Your task to perform on an android device: turn notification dots on Image 0: 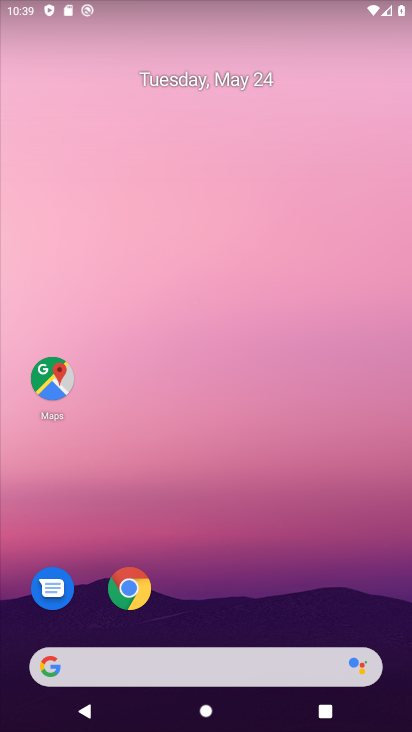
Step 0: drag from (209, 621) to (217, 277)
Your task to perform on an android device: turn notification dots on Image 1: 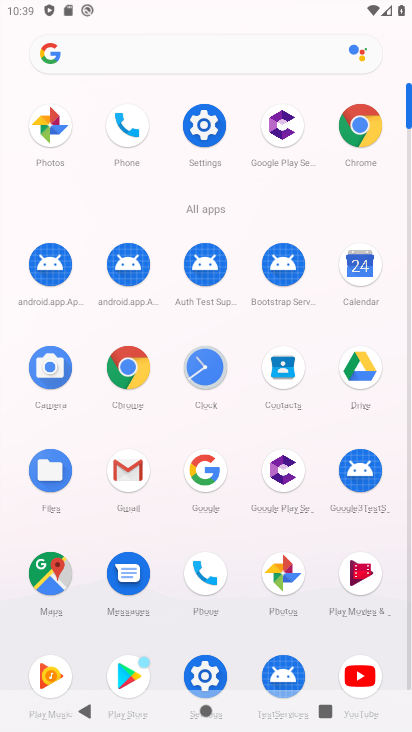
Step 1: click (208, 121)
Your task to perform on an android device: turn notification dots on Image 2: 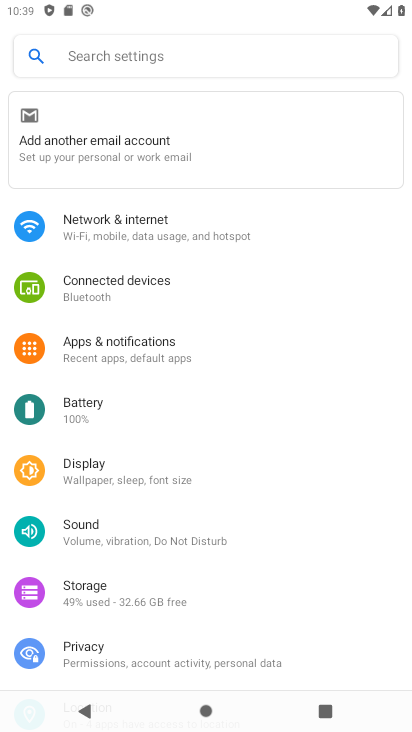
Step 2: click (151, 358)
Your task to perform on an android device: turn notification dots on Image 3: 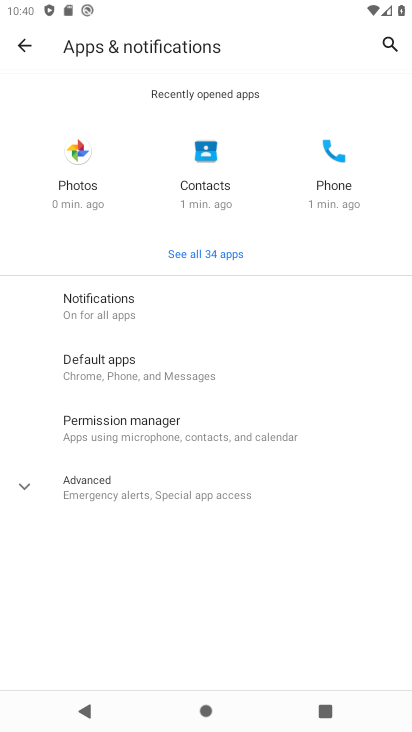
Step 3: click (148, 309)
Your task to perform on an android device: turn notification dots on Image 4: 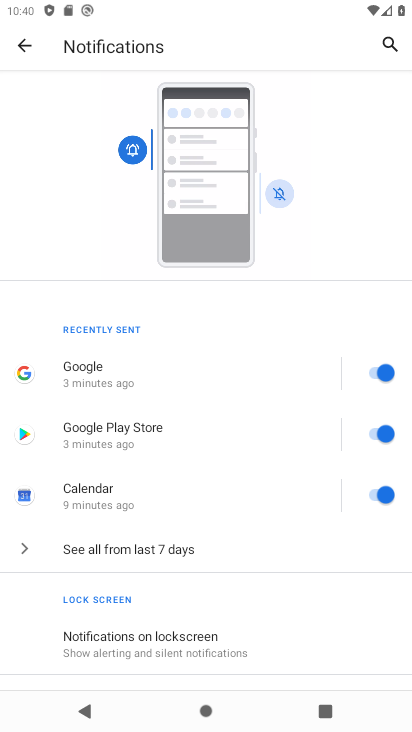
Step 4: drag from (201, 655) to (187, 315)
Your task to perform on an android device: turn notification dots on Image 5: 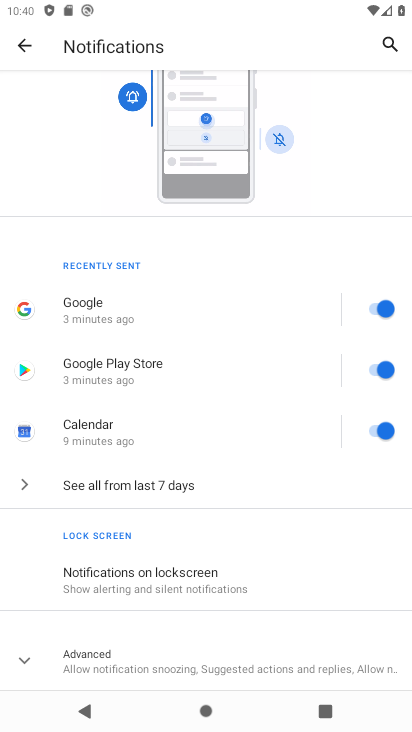
Step 5: click (236, 660)
Your task to perform on an android device: turn notification dots on Image 6: 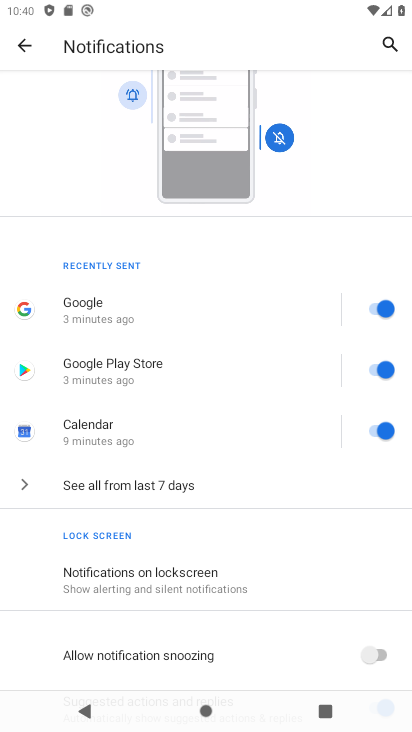
Step 6: task complete